Your task to perform on an android device: open app "Chime – Mobile Banking" Image 0: 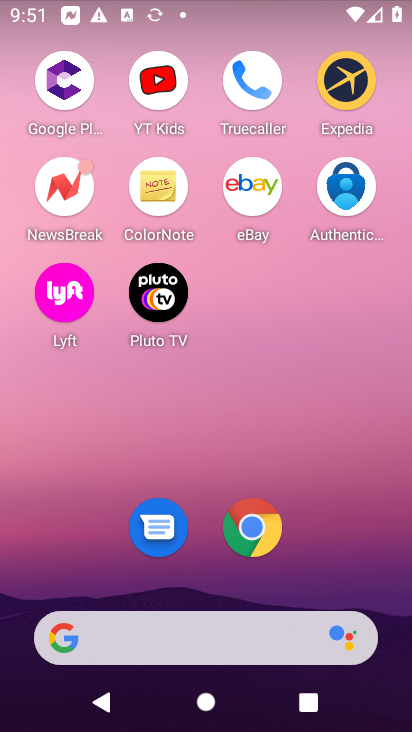
Step 0: drag from (202, 578) to (194, 317)
Your task to perform on an android device: open app "Chime – Mobile Banking" Image 1: 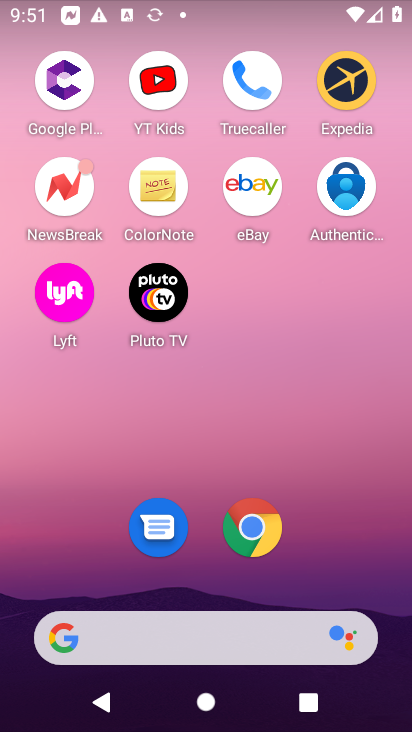
Step 1: drag from (208, 599) to (247, 4)
Your task to perform on an android device: open app "Chime – Mobile Banking" Image 2: 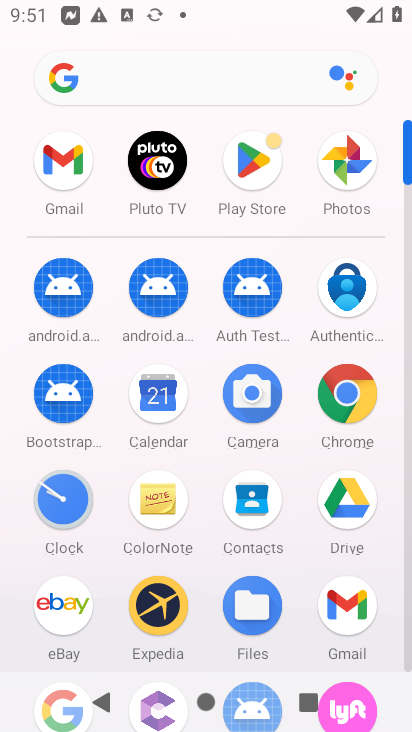
Step 2: click (249, 156)
Your task to perform on an android device: open app "Chime – Mobile Banking" Image 3: 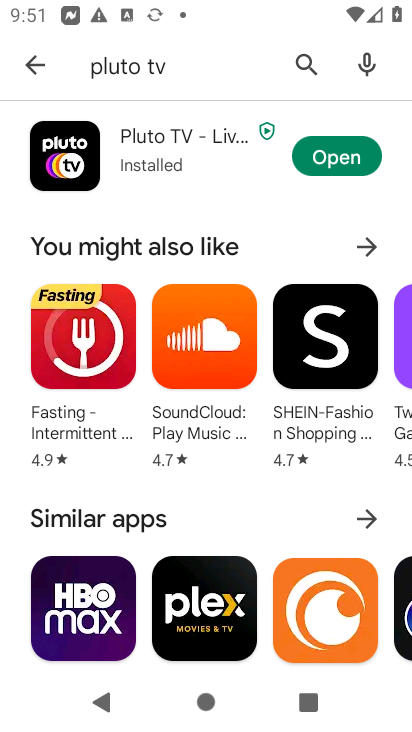
Step 3: click (184, 68)
Your task to perform on an android device: open app "Chime – Mobile Banking" Image 4: 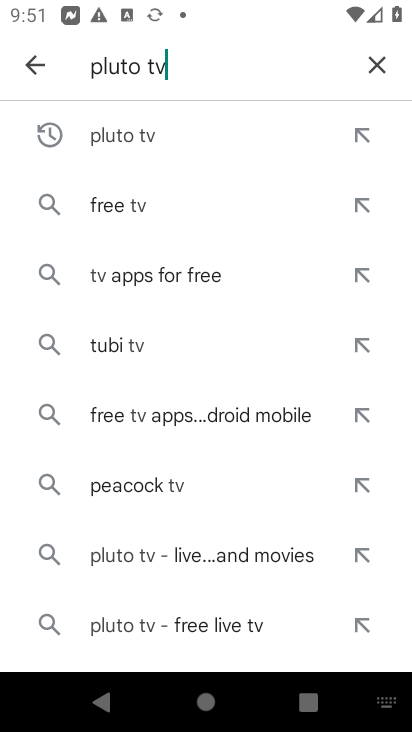
Step 4: click (375, 63)
Your task to perform on an android device: open app "Chime – Mobile Banking" Image 5: 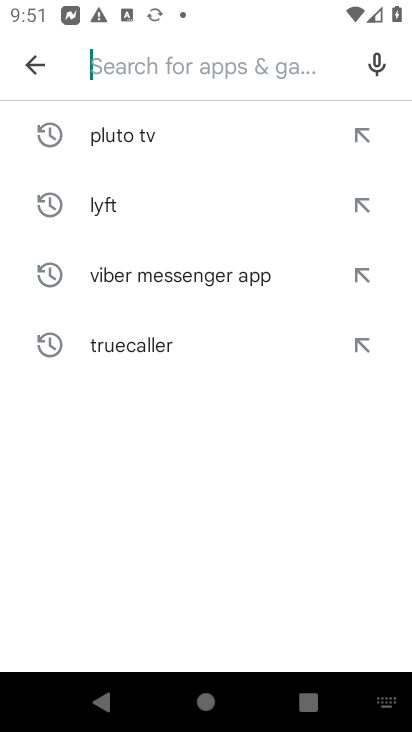
Step 5: type "chime"
Your task to perform on an android device: open app "Chime – Mobile Banking" Image 6: 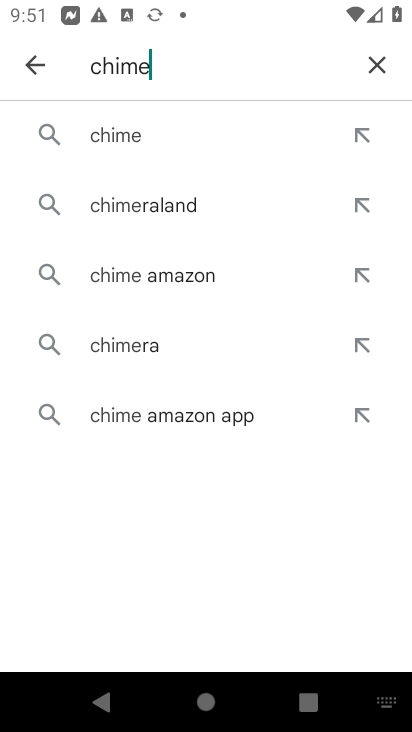
Step 6: click (162, 142)
Your task to perform on an android device: open app "Chime – Mobile Banking" Image 7: 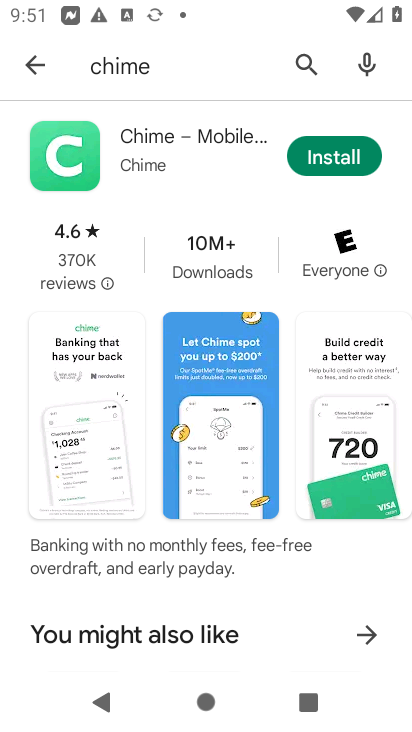
Step 7: task complete